Your task to perform on an android device: turn off location Image 0: 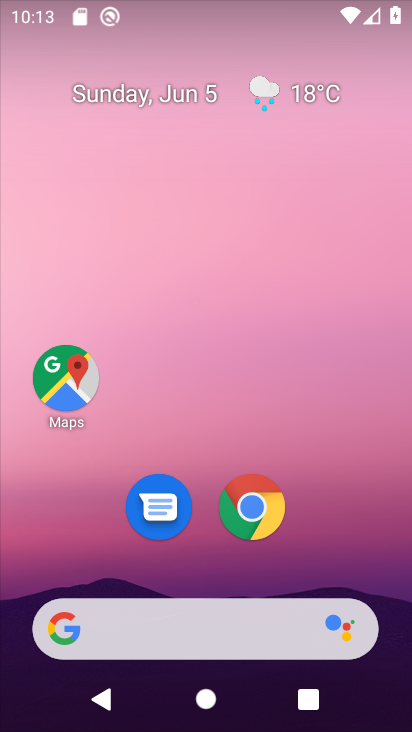
Step 0: drag from (225, 567) to (260, 88)
Your task to perform on an android device: turn off location Image 1: 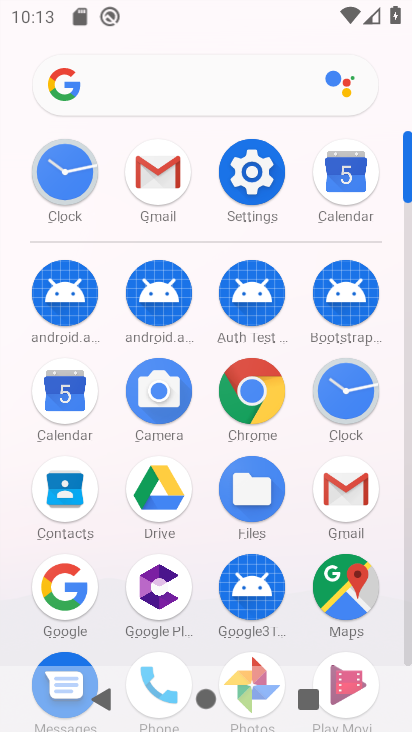
Step 1: click (252, 209)
Your task to perform on an android device: turn off location Image 2: 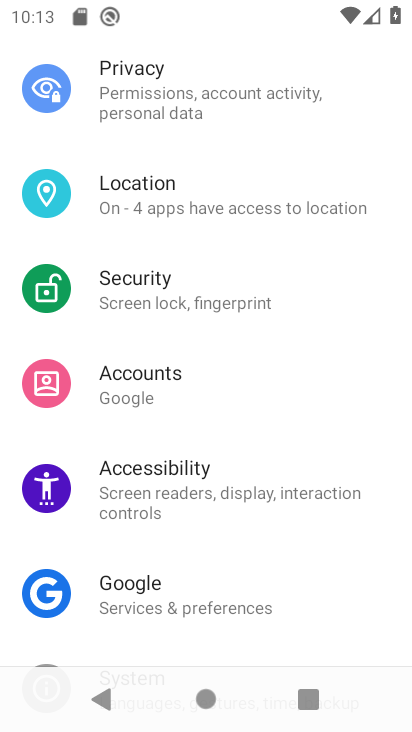
Step 2: click (190, 197)
Your task to perform on an android device: turn off location Image 3: 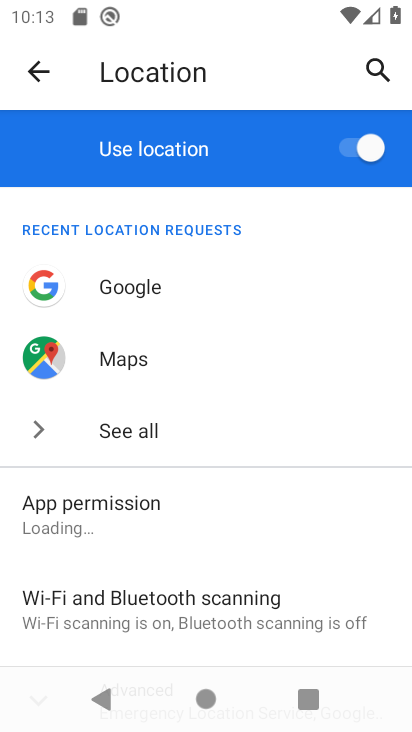
Step 3: click (333, 155)
Your task to perform on an android device: turn off location Image 4: 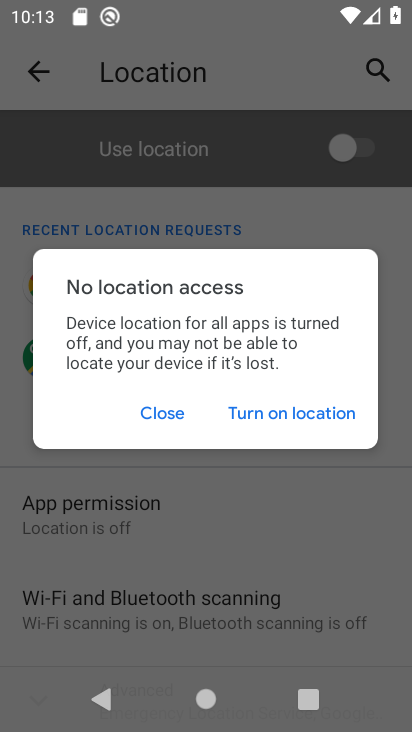
Step 4: click (182, 416)
Your task to perform on an android device: turn off location Image 5: 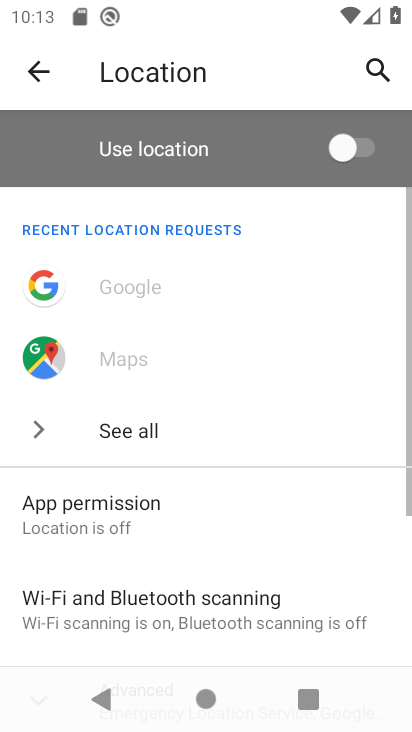
Step 5: task complete